Your task to perform on an android device: toggle pop-ups in chrome Image 0: 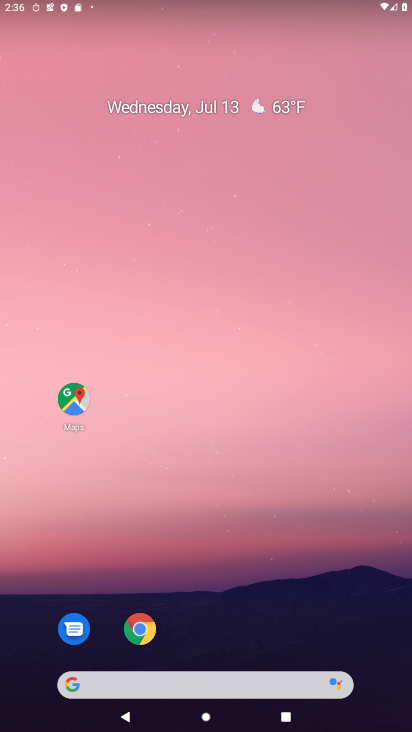
Step 0: drag from (185, 647) to (296, 6)
Your task to perform on an android device: toggle pop-ups in chrome Image 1: 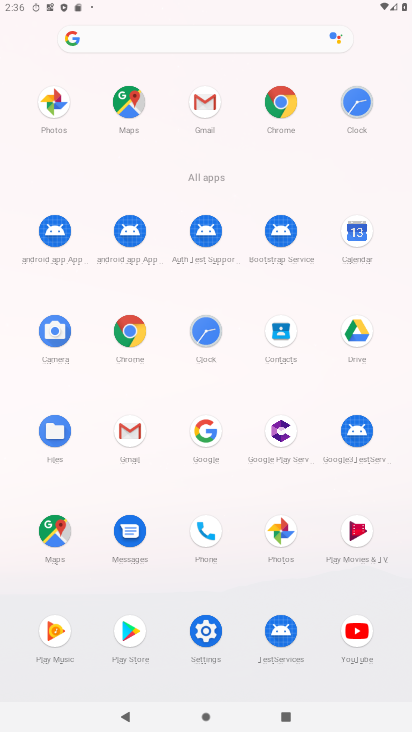
Step 1: click (132, 329)
Your task to perform on an android device: toggle pop-ups in chrome Image 2: 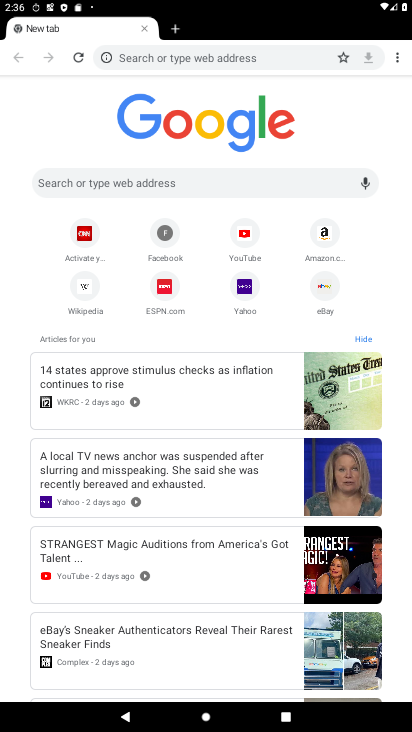
Step 2: click (395, 59)
Your task to perform on an android device: toggle pop-ups in chrome Image 3: 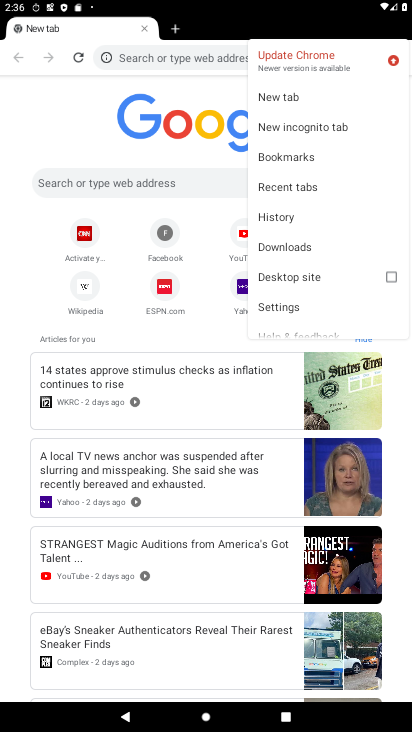
Step 3: click (287, 297)
Your task to perform on an android device: toggle pop-ups in chrome Image 4: 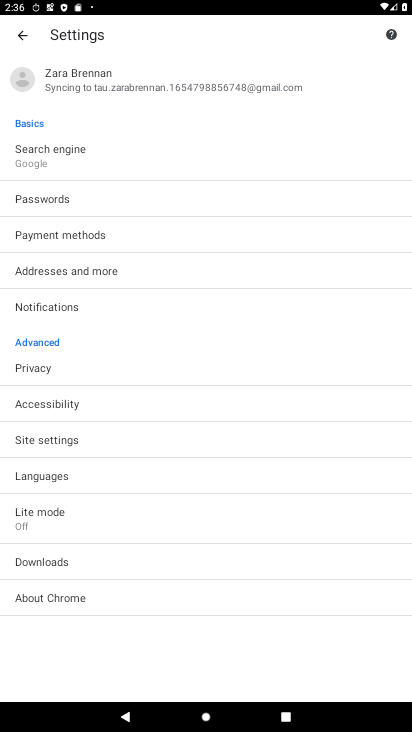
Step 4: click (48, 444)
Your task to perform on an android device: toggle pop-ups in chrome Image 5: 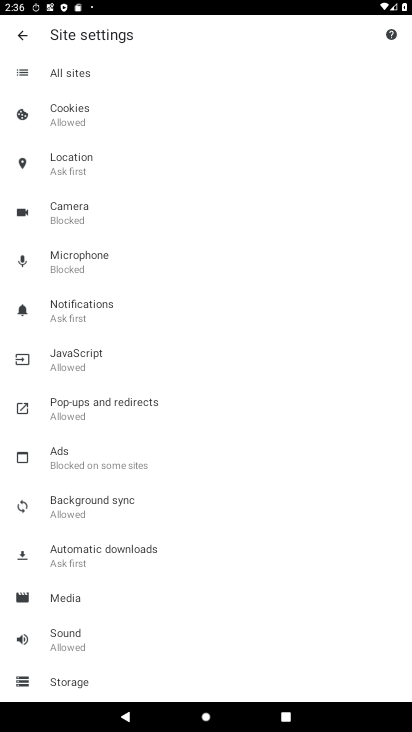
Step 5: click (94, 409)
Your task to perform on an android device: toggle pop-ups in chrome Image 6: 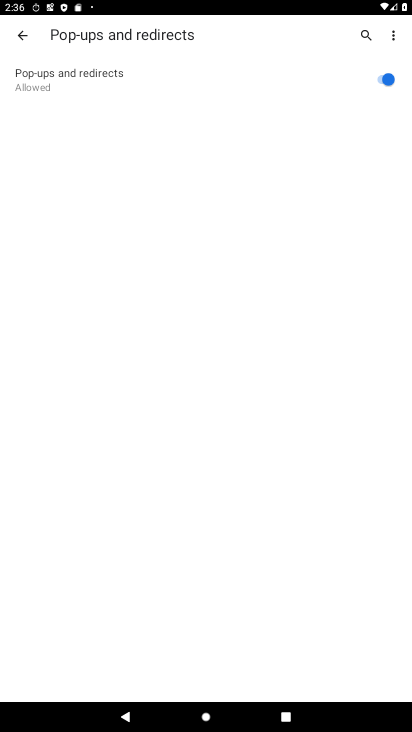
Step 6: click (382, 78)
Your task to perform on an android device: toggle pop-ups in chrome Image 7: 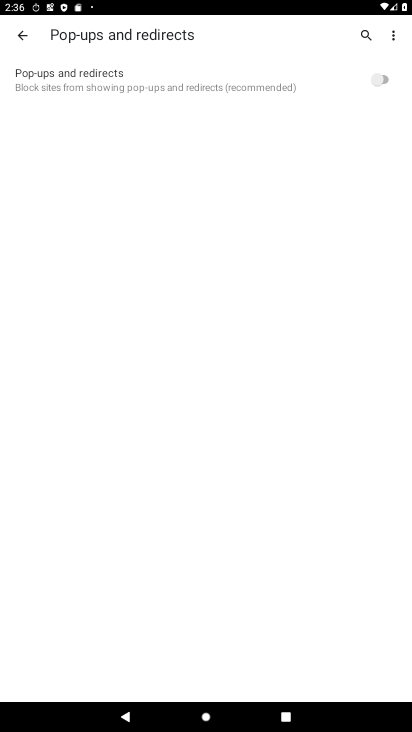
Step 7: task complete